Your task to perform on an android device: open wifi settings Image 0: 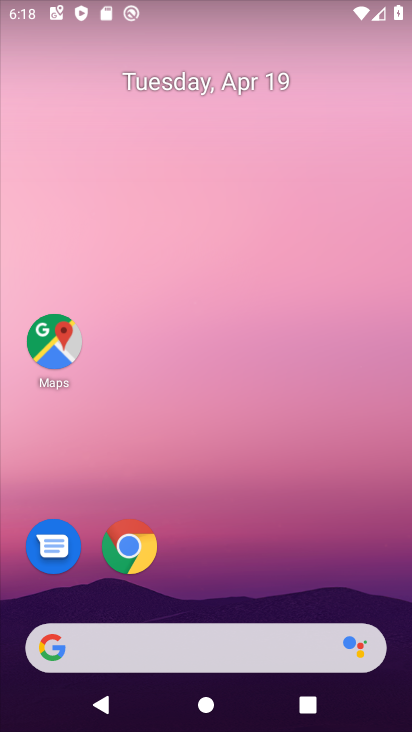
Step 0: drag from (274, 561) to (332, 0)
Your task to perform on an android device: open wifi settings Image 1: 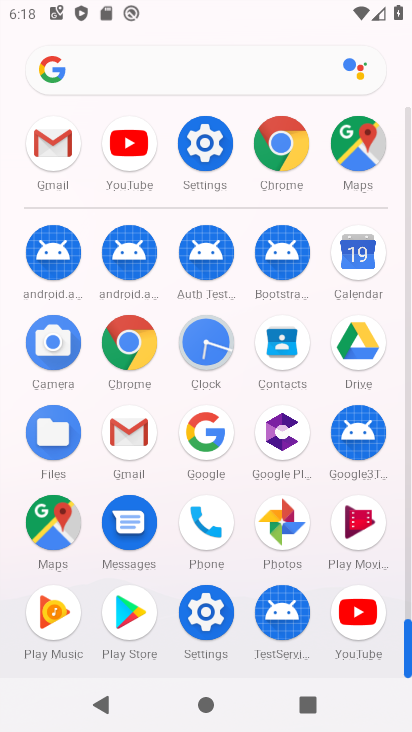
Step 1: click (206, 144)
Your task to perform on an android device: open wifi settings Image 2: 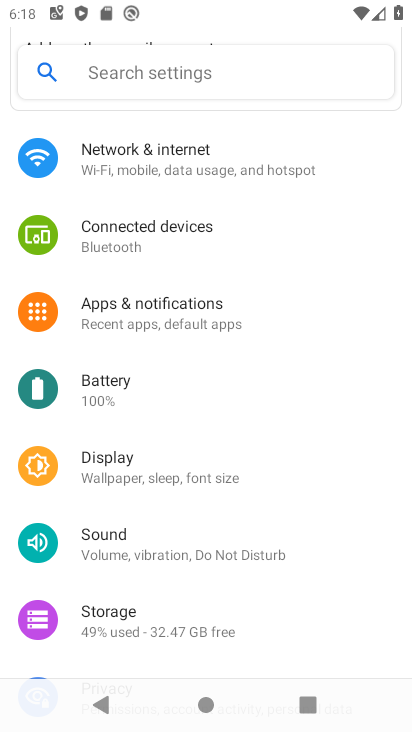
Step 2: click (245, 167)
Your task to perform on an android device: open wifi settings Image 3: 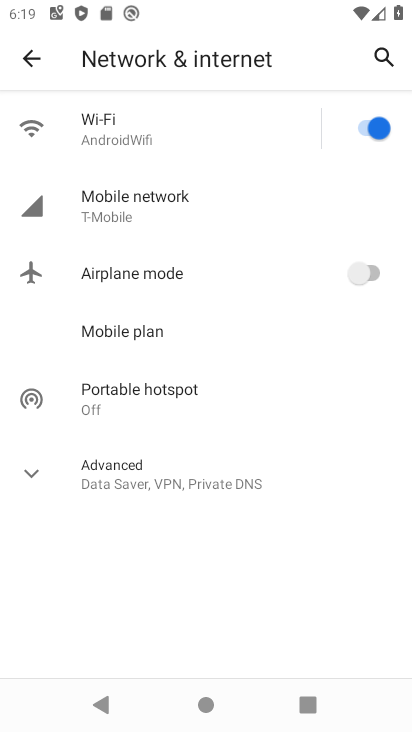
Step 3: click (219, 133)
Your task to perform on an android device: open wifi settings Image 4: 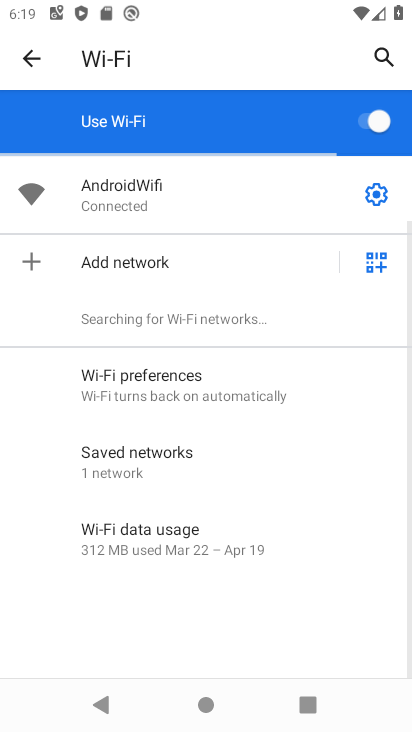
Step 4: click (380, 192)
Your task to perform on an android device: open wifi settings Image 5: 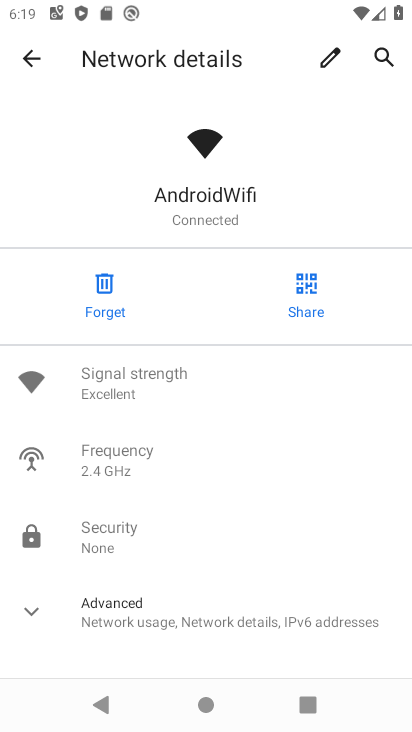
Step 5: task complete